Your task to perform on an android device: check data usage Image 0: 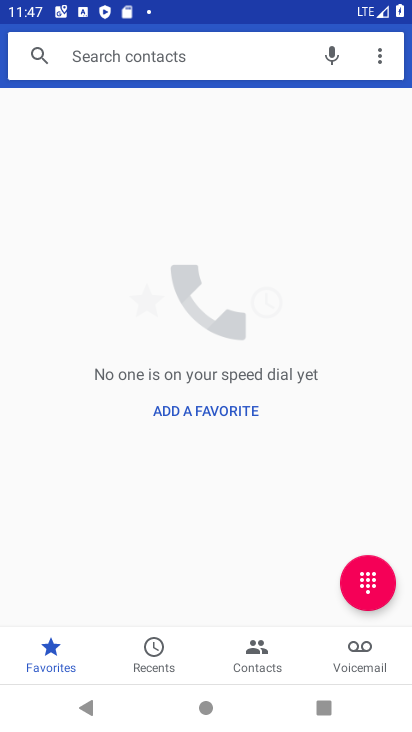
Step 0: press home button
Your task to perform on an android device: check data usage Image 1: 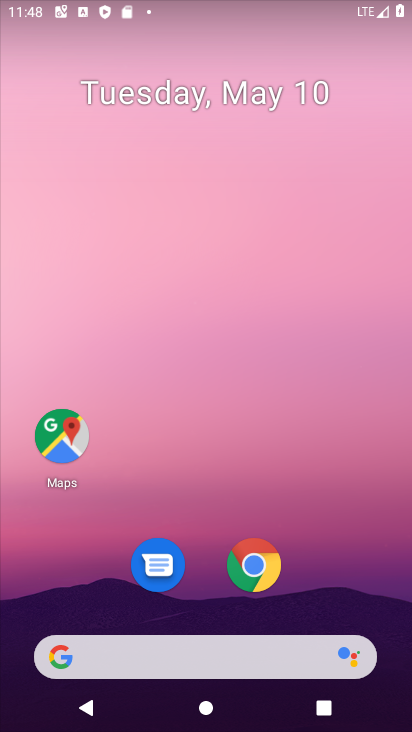
Step 1: drag from (53, 616) to (191, 334)
Your task to perform on an android device: check data usage Image 2: 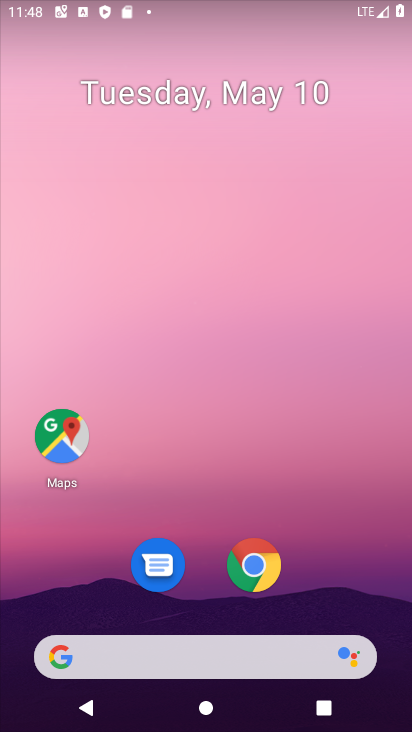
Step 2: drag from (6, 608) to (255, 38)
Your task to perform on an android device: check data usage Image 3: 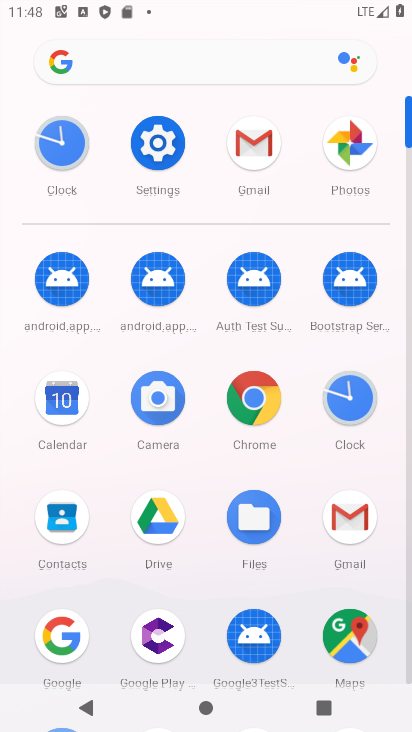
Step 3: click (137, 162)
Your task to perform on an android device: check data usage Image 4: 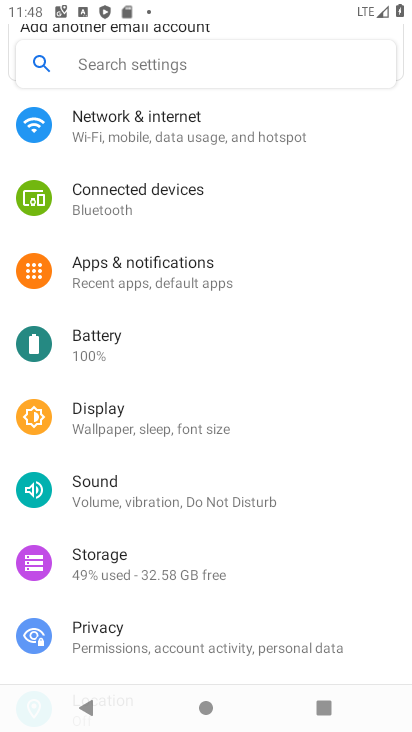
Step 4: click (164, 143)
Your task to perform on an android device: check data usage Image 5: 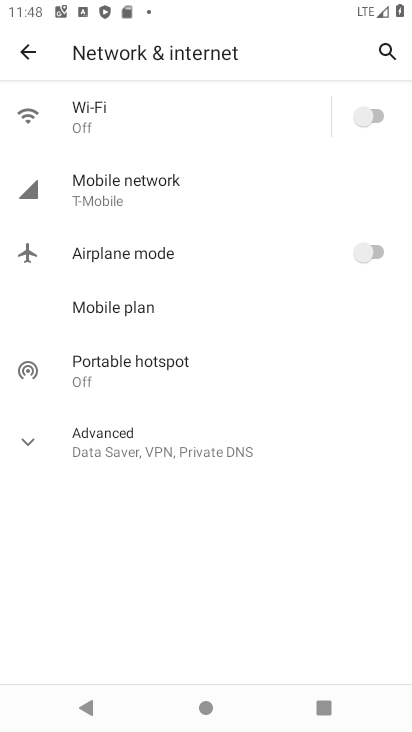
Step 5: click (151, 191)
Your task to perform on an android device: check data usage Image 6: 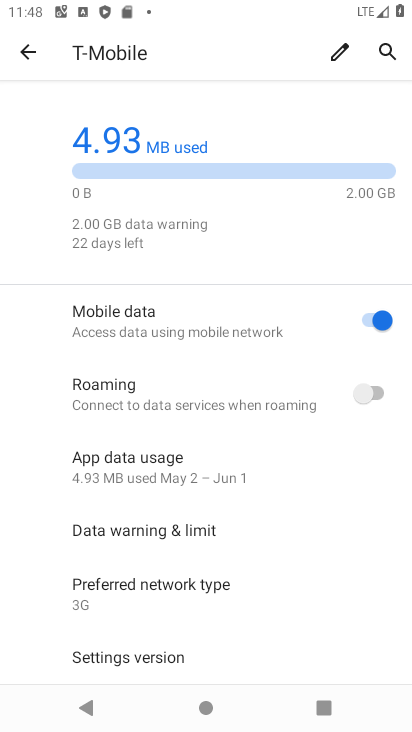
Step 6: task complete